Your task to perform on an android device: Open notification settings Image 0: 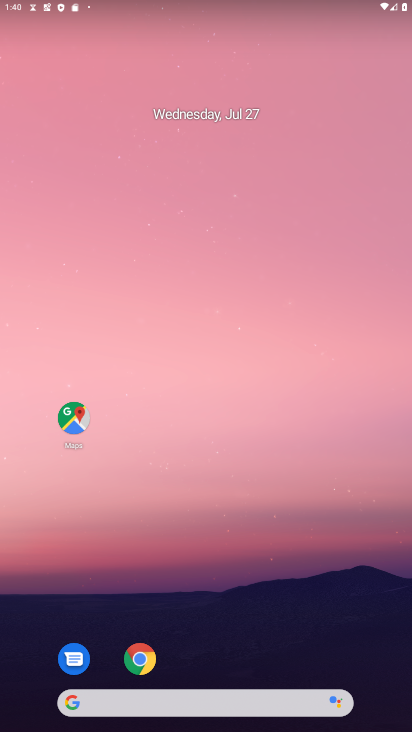
Step 0: press home button
Your task to perform on an android device: Open notification settings Image 1: 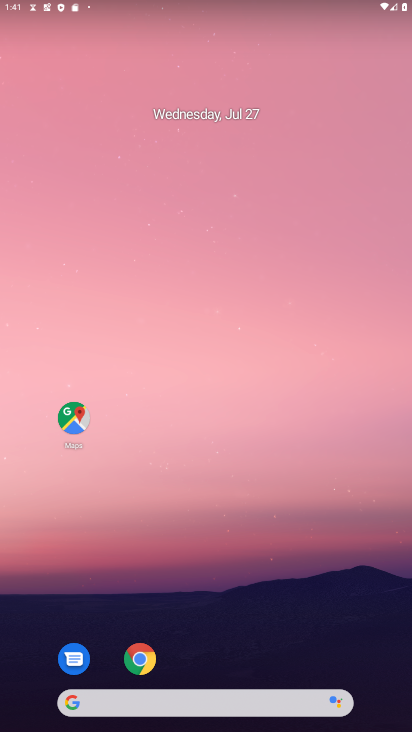
Step 1: drag from (198, 676) to (205, 61)
Your task to perform on an android device: Open notification settings Image 2: 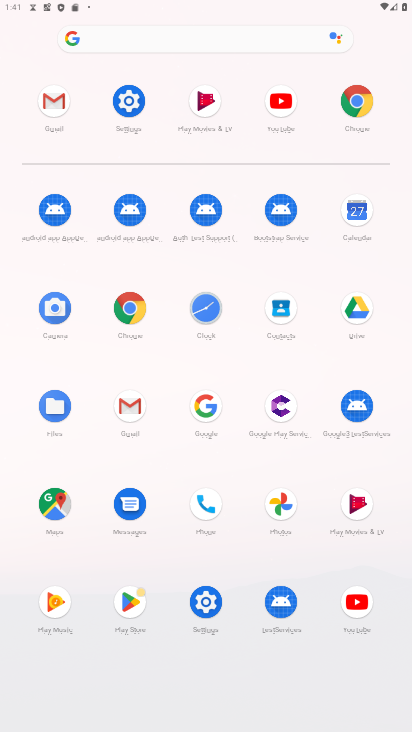
Step 2: click (122, 102)
Your task to perform on an android device: Open notification settings Image 3: 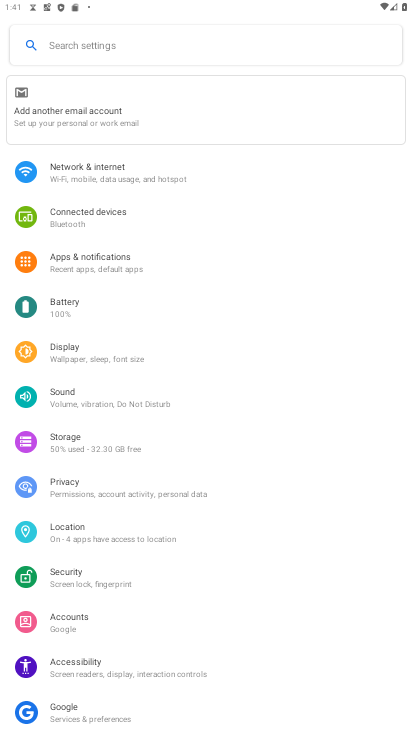
Step 3: click (152, 261)
Your task to perform on an android device: Open notification settings Image 4: 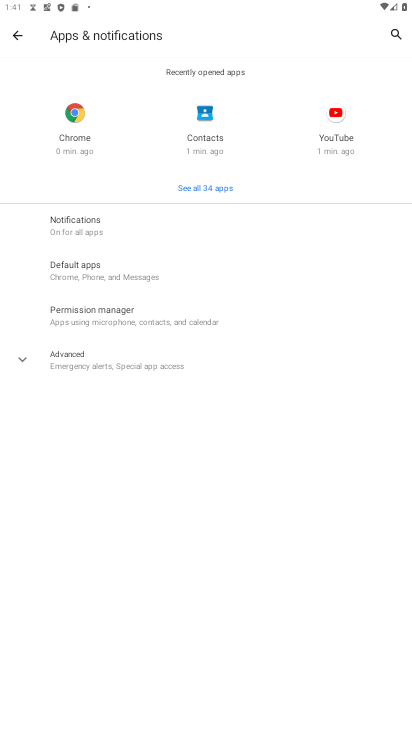
Step 4: click (109, 227)
Your task to perform on an android device: Open notification settings Image 5: 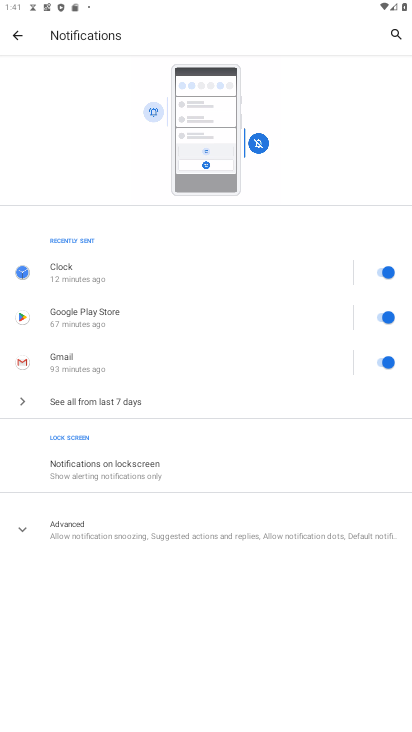
Step 5: click (37, 524)
Your task to perform on an android device: Open notification settings Image 6: 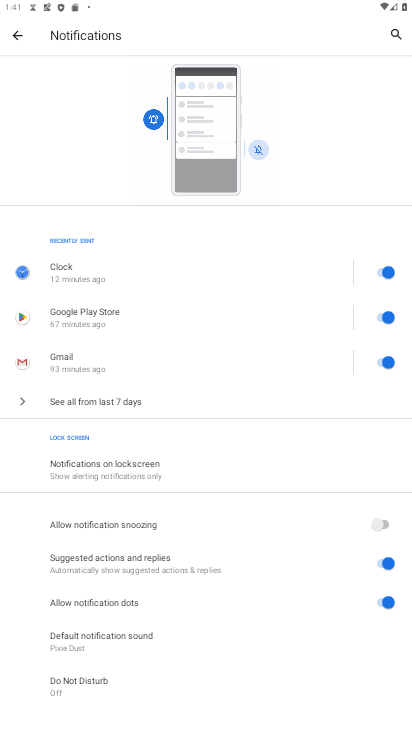
Step 6: task complete